Your task to perform on an android device: turn smart compose on in the gmail app Image 0: 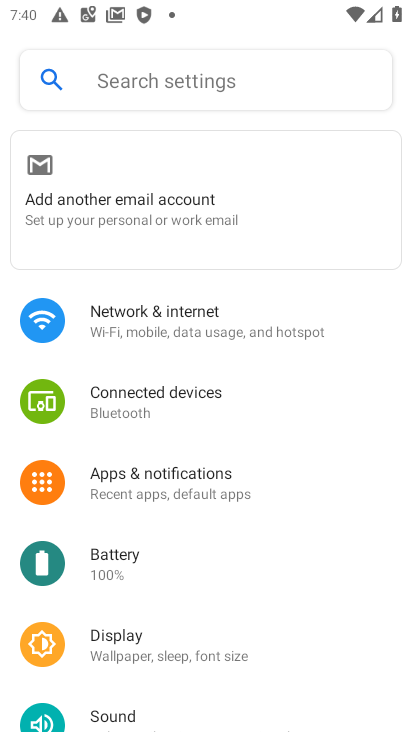
Step 0: press home button
Your task to perform on an android device: turn smart compose on in the gmail app Image 1: 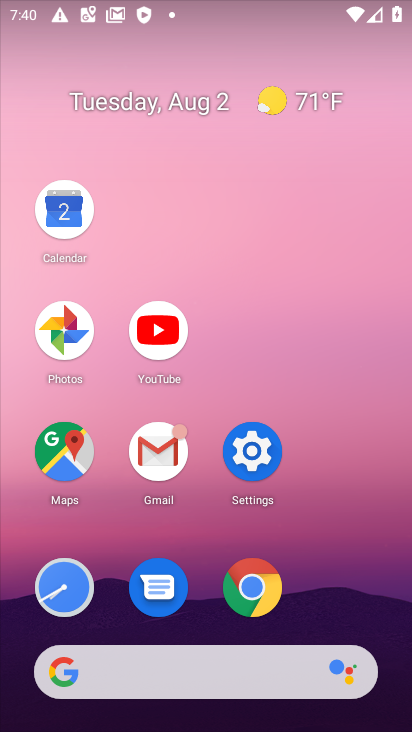
Step 1: click (162, 460)
Your task to perform on an android device: turn smart compose on in the gmail app Image 2: 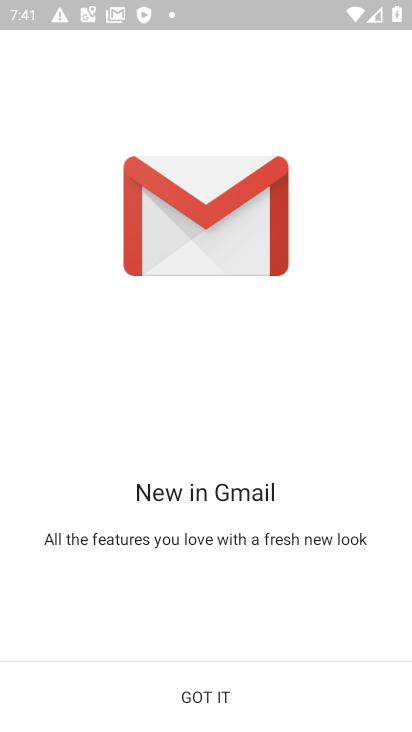
Step 2: click (216, 697)
Your task to perform on an android device: turn smart compose on in the gmail app Image 3: 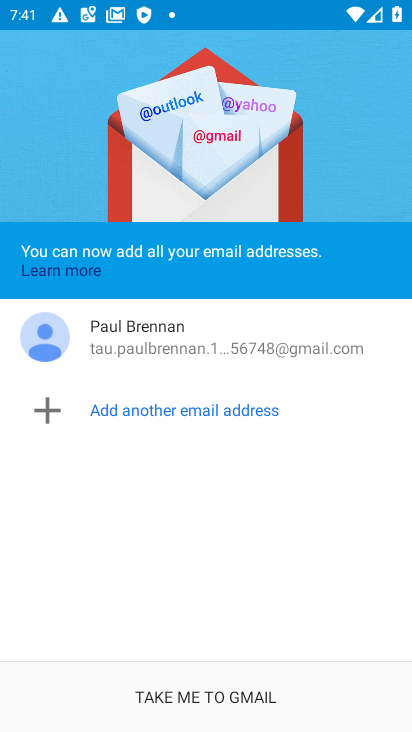
Step 3: click (210, 700)
Your task to perform on an android device: turn smart compose on in the gmail app Image 4: 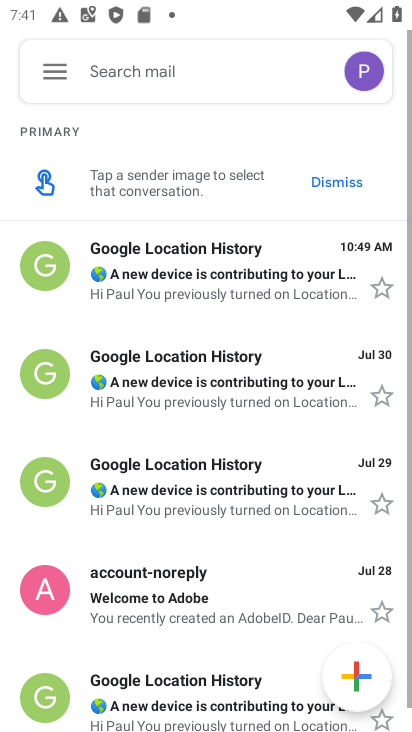
Step 4: click (51, 64)
Your task to perform on an android device: turn smart compose on in the gmail app Image 5: 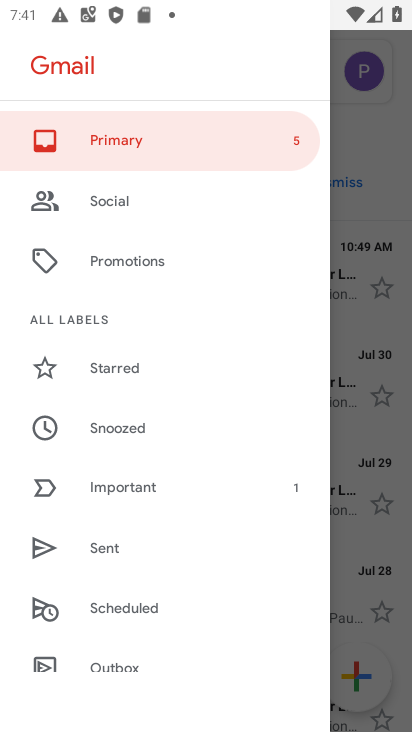
Step 5: drag from (172, 664) to (163, 180)
Your task to perform on an android device: turn smart compose on in the gmail app Image 6: 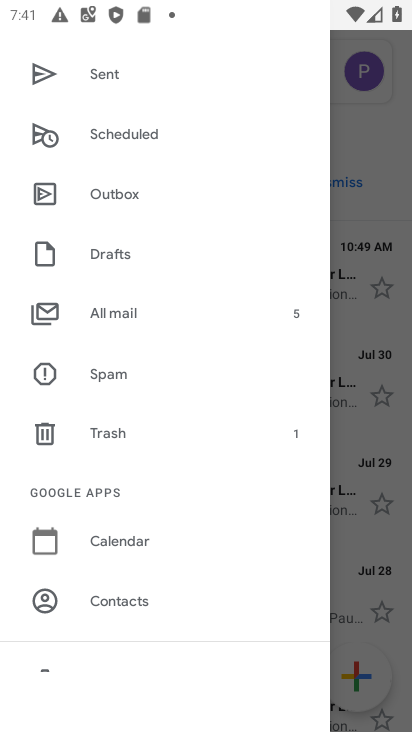
Step 6: drag from (166, 555) to (171, 101)
Your task to perform on an android device: turn smart compose on in the gmail app Image 7: 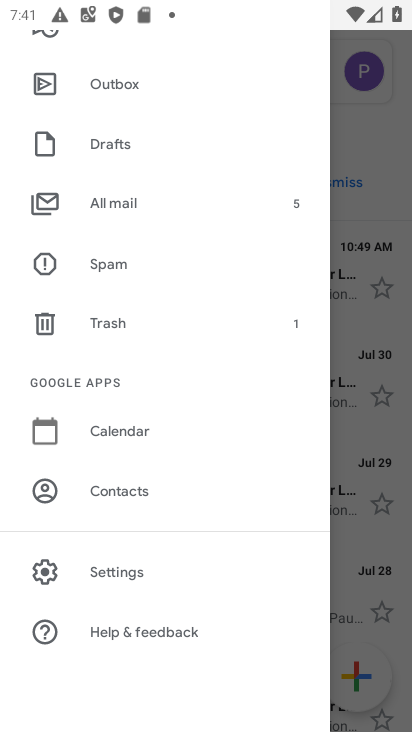
Step 7: click (106, 571)
Your task to perform on an android device: turn smart compose on in the gmail app Image 8: 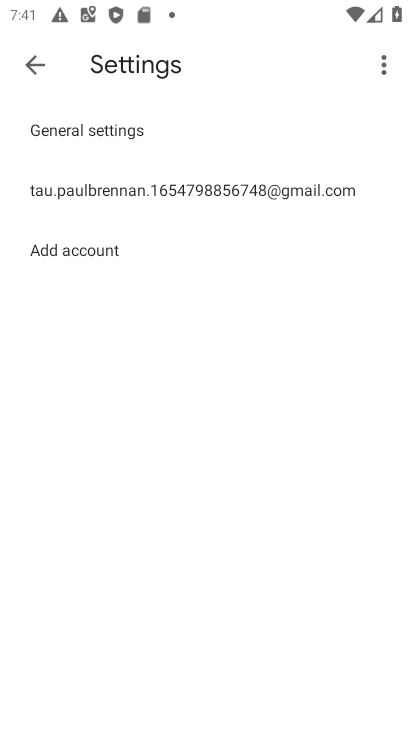
Step 8: click (119, 187)
Your task to perform on an android device: turn smart compose on in the gmail app Image 9: 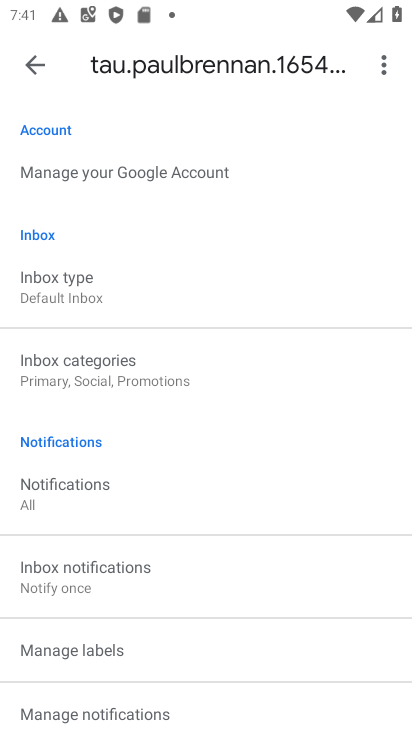
Step 9: task complete